Your task to perform on an android device: turn on bluetooth scan Image 0: 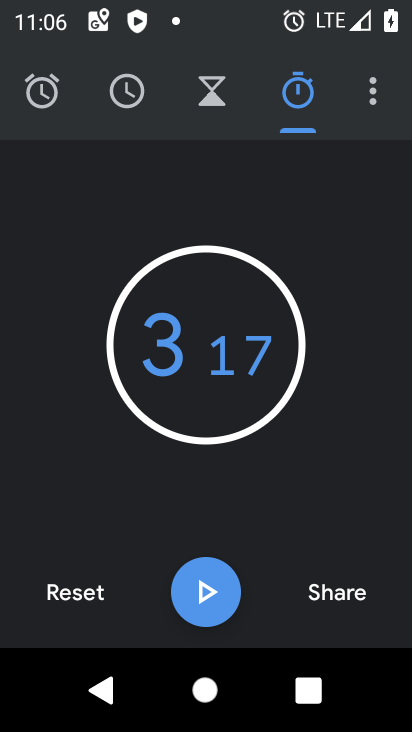
Step 0: press home button
Your task to perform on an android device: turn on bluetooth scan Image 1: 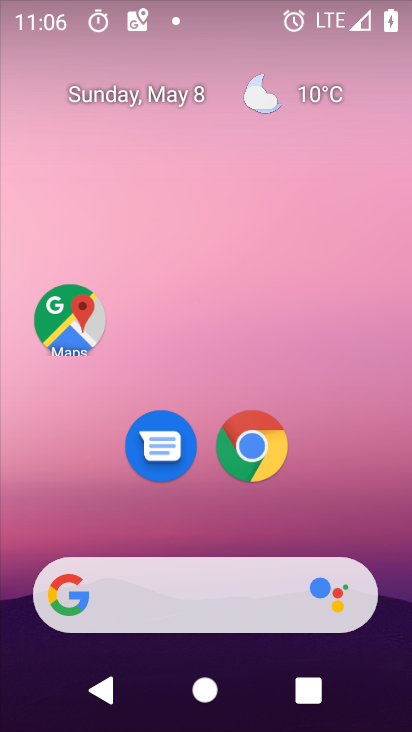
Step 1: drag from (377, 548) to (411, 0)
Your task to perform on an android device: turn on bluetooth scan Image 2: 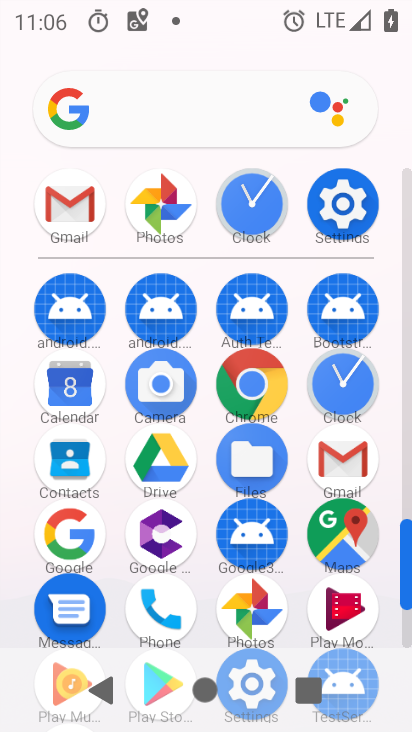
Step 2: click (337, 208)
Your task to perform on an android device: turn on bluetooth scan Image 3: 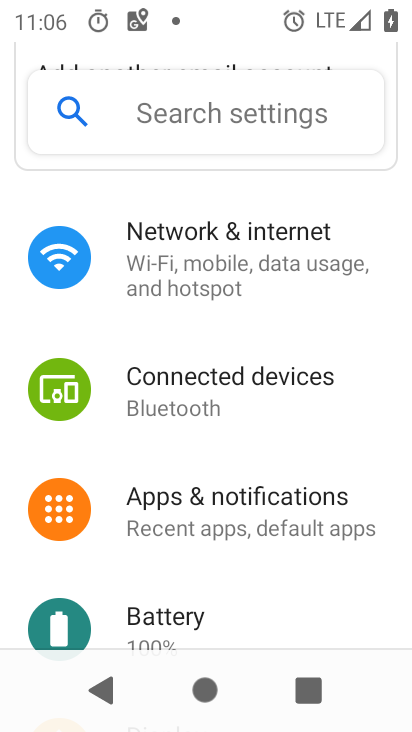
Step 3: drag from (333, 529) to (357, 172)
Your task to perform on an android device: turn on bluetooth scan Image 4: 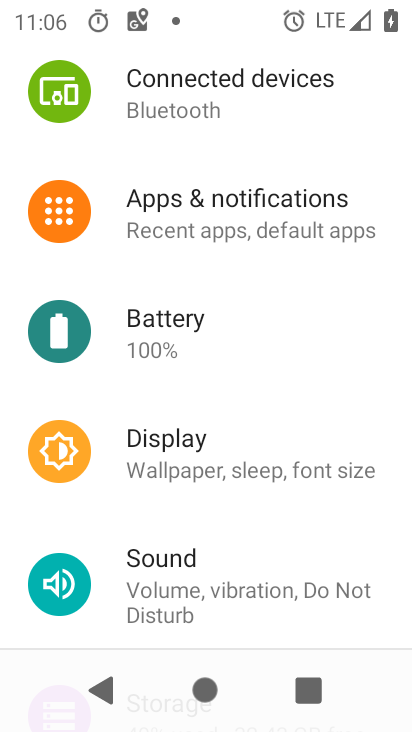
Step 4: drag from (307, 474) to (325, 83)
Your task to perform on an android device: turn on bluetooth scan Image 5: 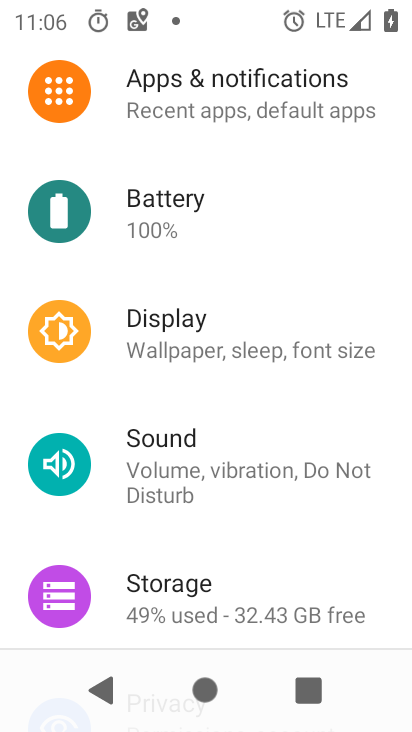
Step 5: drag from (276, 519) to (283, 145)
Your task to perform on an android device: turn on bluetooth scan Image 6: 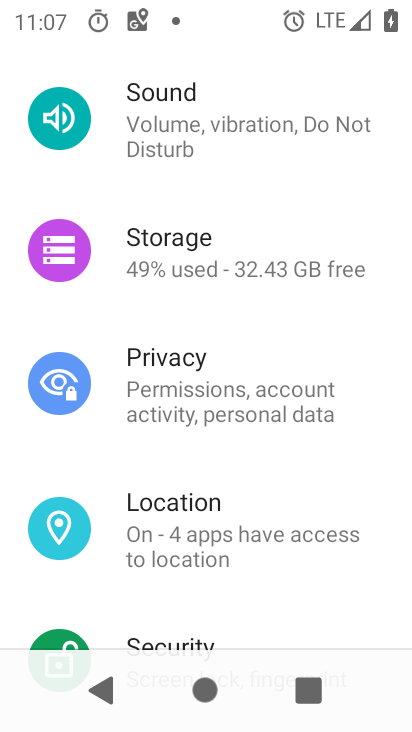
Step 6: click (187, 513)
Your task to perform on an android device: turn on bluetooth scan Image 7: 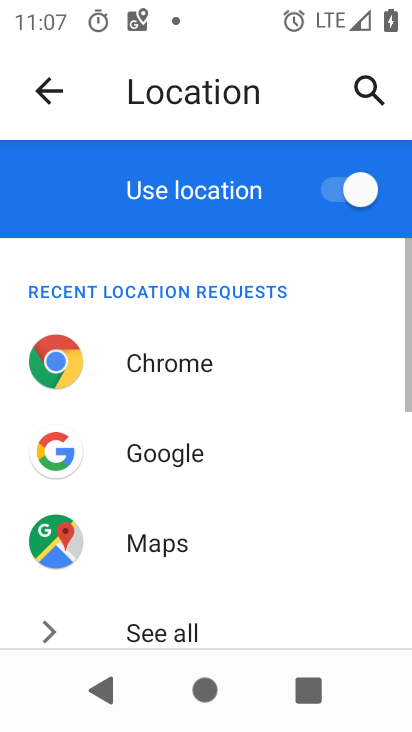
Step 7: drag from (284, 521) to (288, 112)
Your task to perform on an android device: turn on bluetooth scan Image 8: 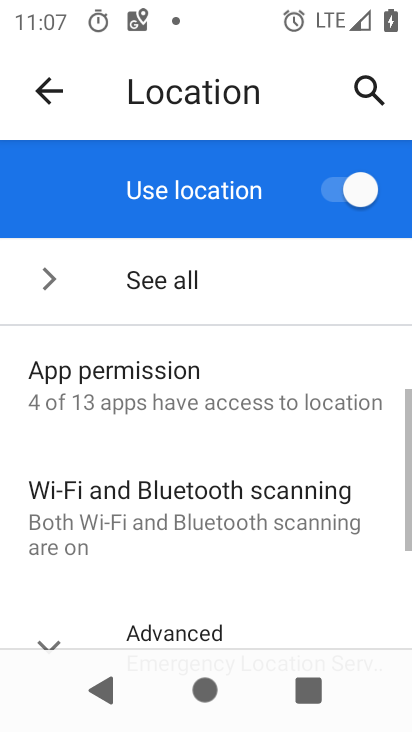
Step 8: click (168, 506)
Your task to perform on an android device: turn on bluetooth scan Image 9: 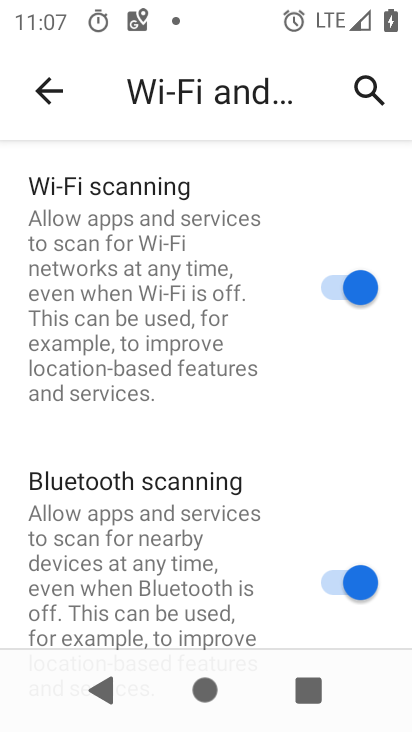
Step 9: task complete